Your task to perform on an android device: Show me popular videos on Youtube Image 0: 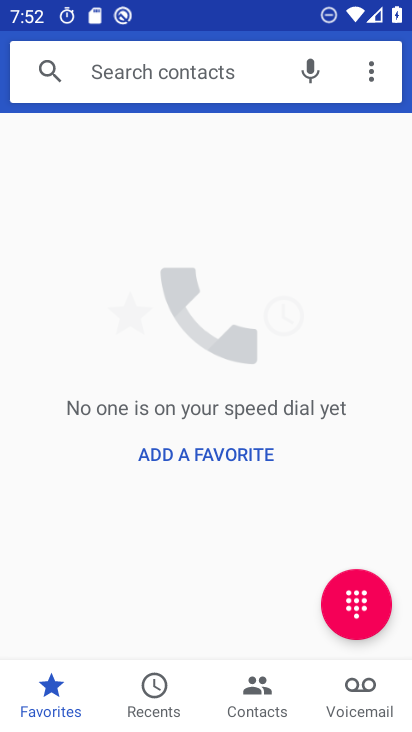
Step 0: press home button
Your task to perform on an android device: Show me popular videos on Youtube Image 1: 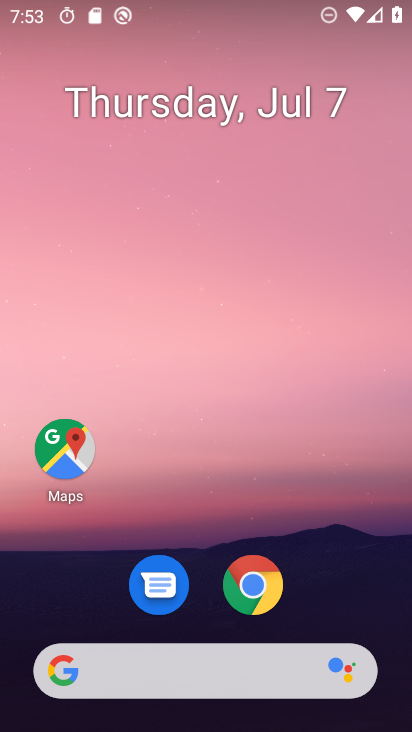
Step 1: drag from (196, 670) to (320, 5)
Your task to perform on an android device: Show me popular videos on Youtube Image 2: 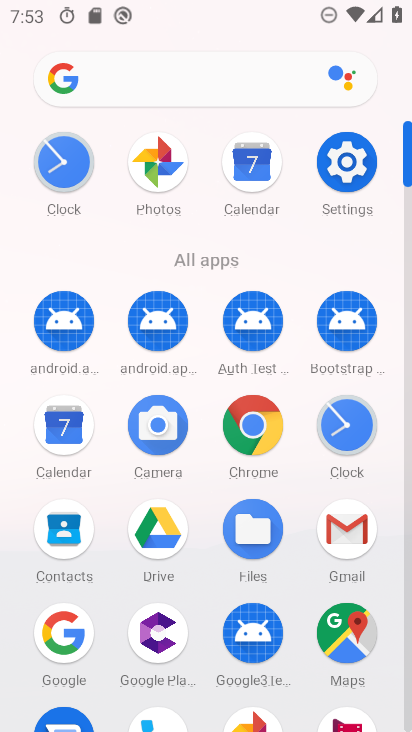
Step 2: drag from (215, 629) to (341, 66)
Your task to perform on an android device: Show me popular videos on Youtube Image 3: 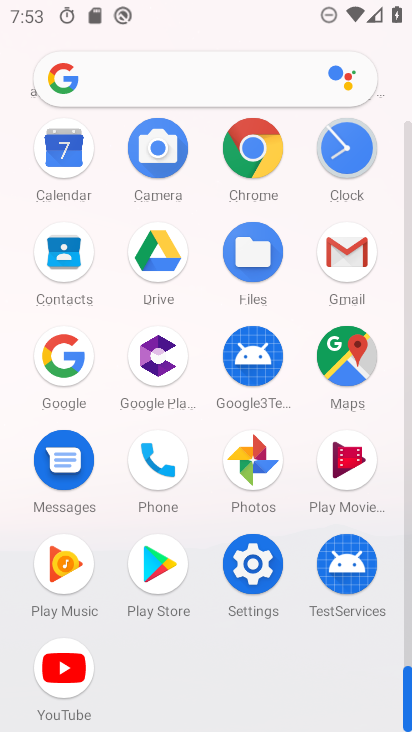
Step 3: click (63, 678)
Your task to perform on an android device: Show me popular videos on Youtube Image 4: 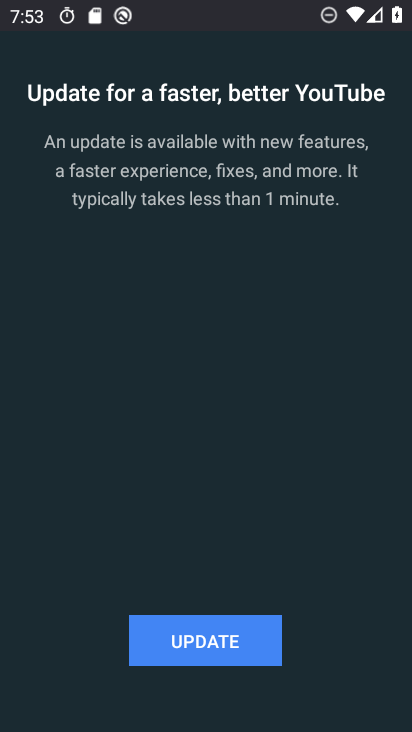
Step 4: click (207, 651)
Your task to perform on an android device: Show me popular videos on Youtube Image 5: 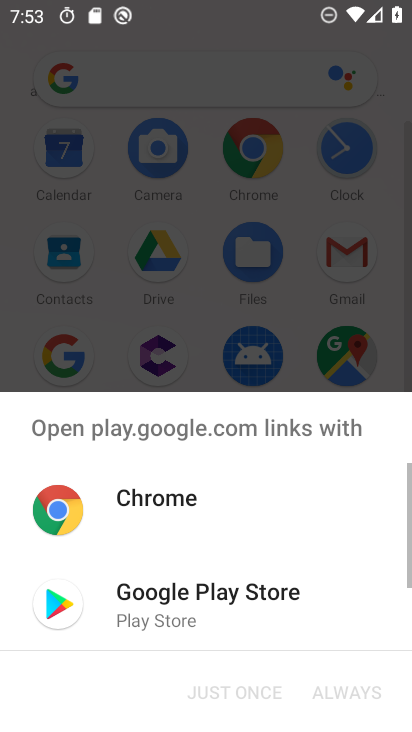
Step 5: click (204, 601)
Your task to perform on an android device: Show me popular videos on Youtube Image 6: 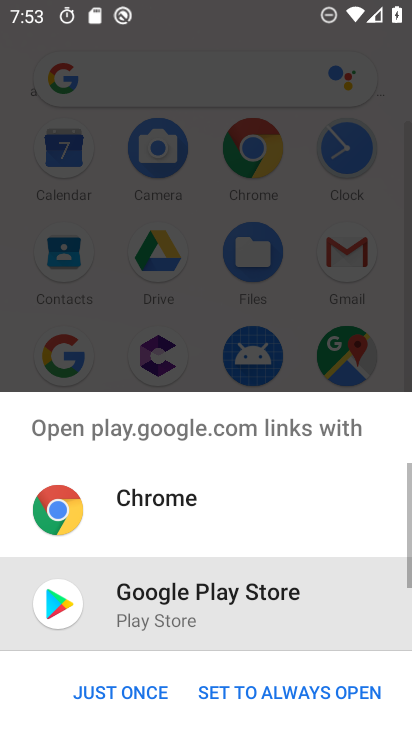
Step 6: click (102, 690)
Your task to perform on an android device: Show me popular videos on Youtube Image 7: 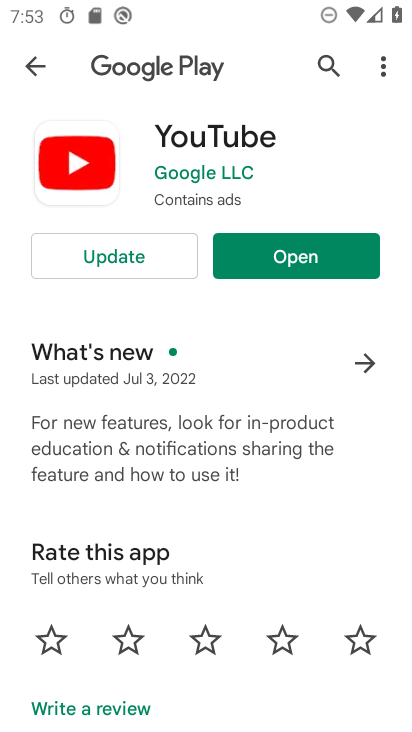
Step 7: click (124, 259)
Your task to perform on an android device: Show me popular videos on Youtube Image 8: 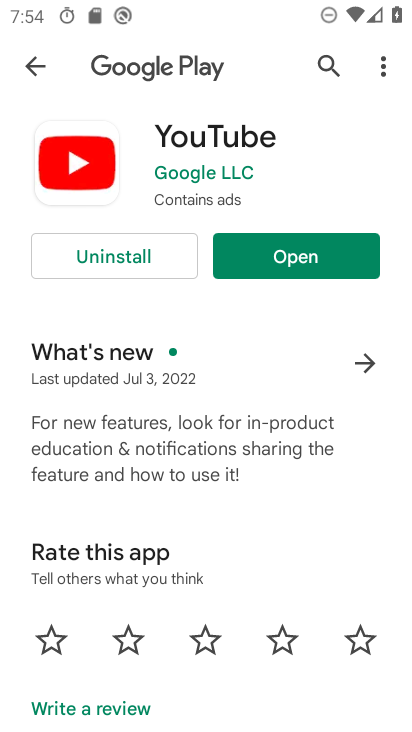
Step 8: click (290, 250)
Your task to perform on an android device: Show me popular videos on Youtube Image 9: 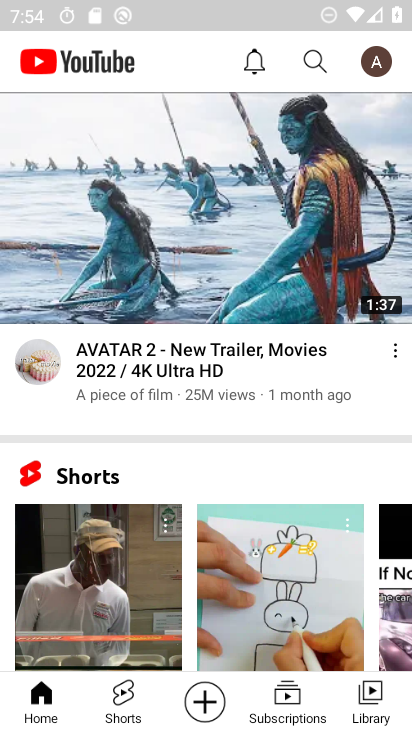
Step 9: task complete